Your task to perform on an android device: remove spam from my inbox in the gmail app Image 0: 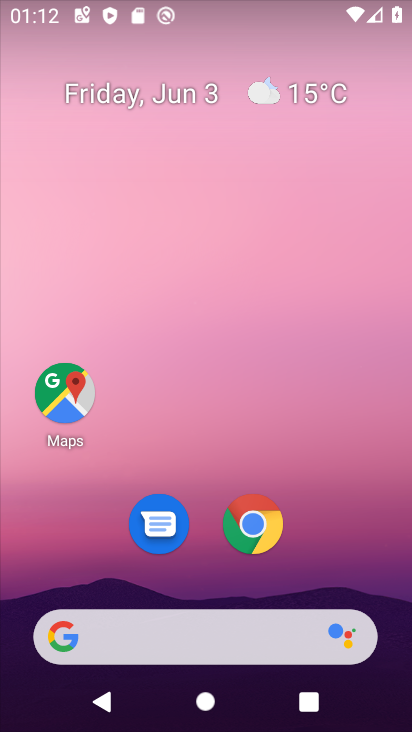
Step 0: drag from (331, 549) to (267, 16)
Your task to perform on an android device: remove spam from my inbox in the gmail app Image 1: 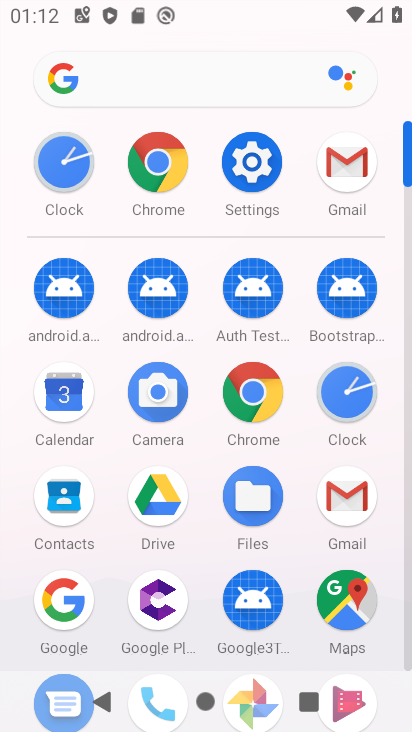
Step 1: click (336, 157)
Your task to perform on an android device: remove spam from my inbox in the gmail app Image 2: 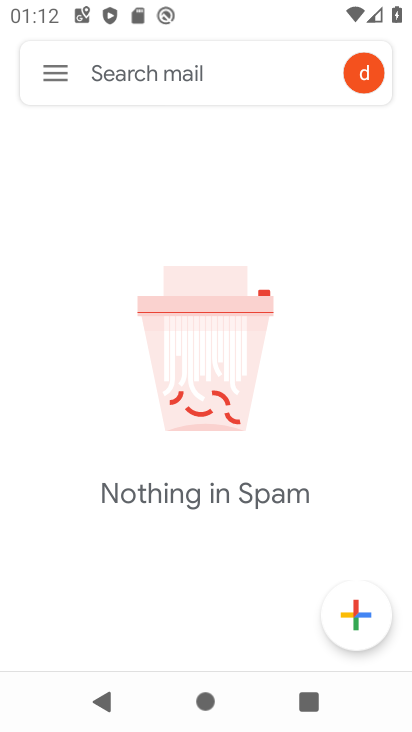
Step 2: click (55, 69)
Your task to perform on an android device: remove spam from my inbox in the gmail app Image 3: 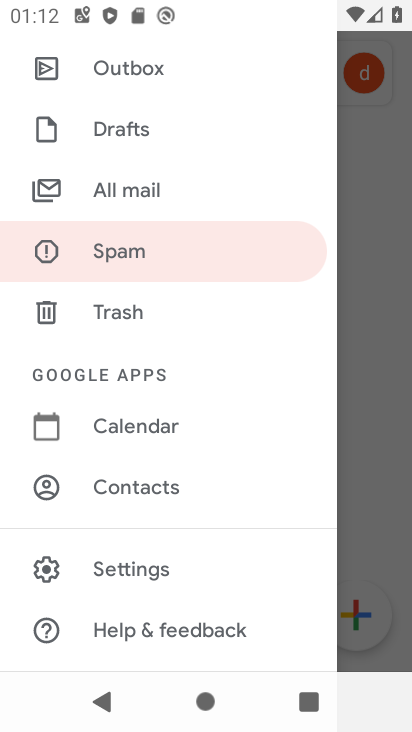
Step 3: click (129, 176)
Your task to perform on an android device: remove spam from my inbox in the gmail app Image 4: 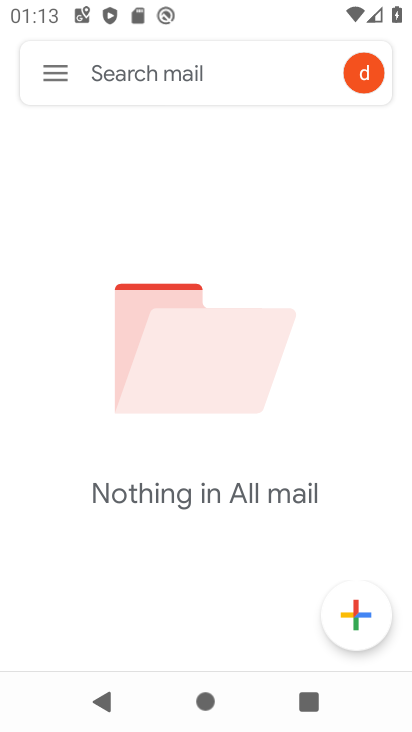
Step 4: task complete